Your task to perform on an android device: Open Youtube and go to "Your channel" Image 0: 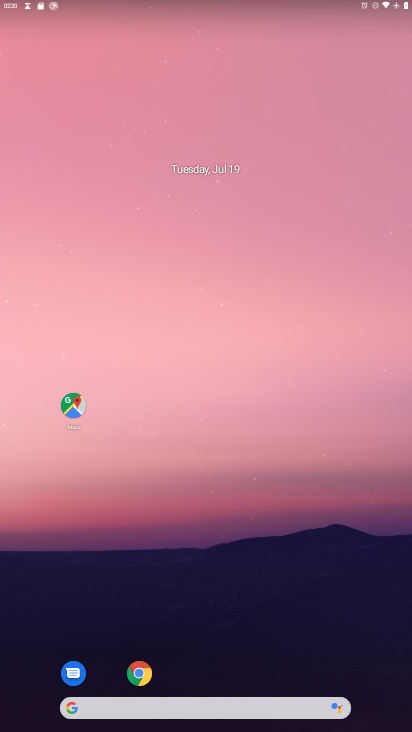
Step 0: drag from (269, 688) to (268, 266)
Your task to perform on an android device: Open Youtube and go to "Your channel" Image 1: 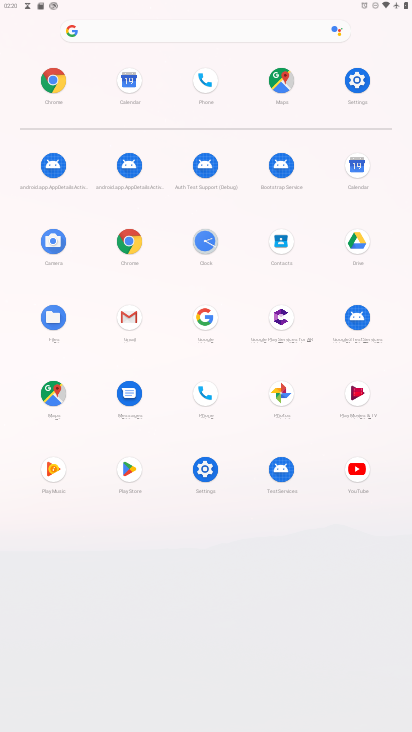
Step 1: click (329, 479)
Your task to perform on an android device: Open Youtube and go to "Your channel" Image 2: 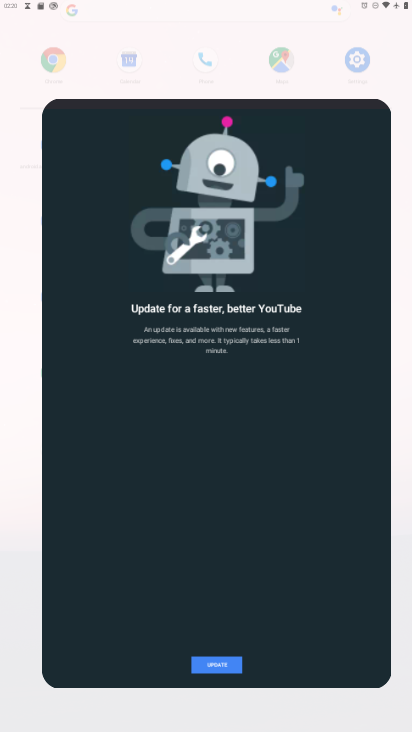
Step 2: click (351, 470)
Your task to perform on an android device: Open Youtube and go to "Your channel" Image 3: 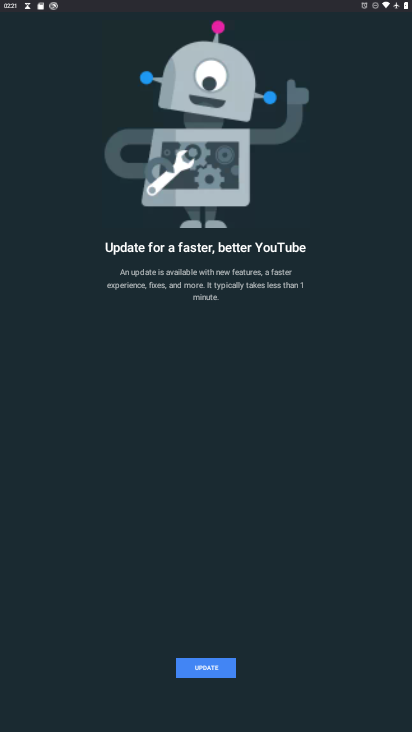
Step 3: task complete